Your task to perform on an android device: turn notification dots off Image 0: 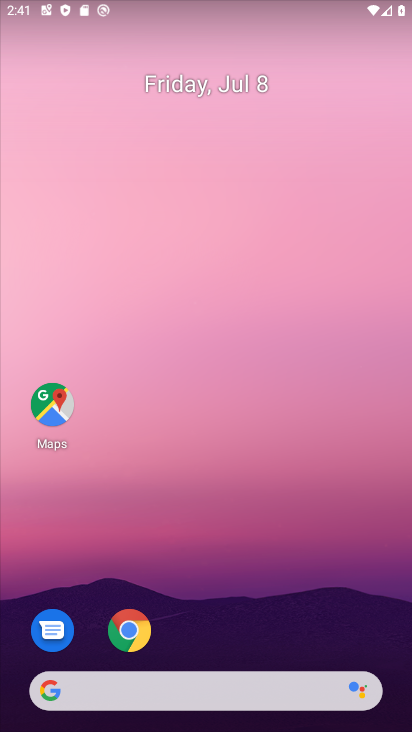
Step 0: drag from (307, 614) to (72, 27)
Your task to perform on an android device: turn notification dots off Image 1: 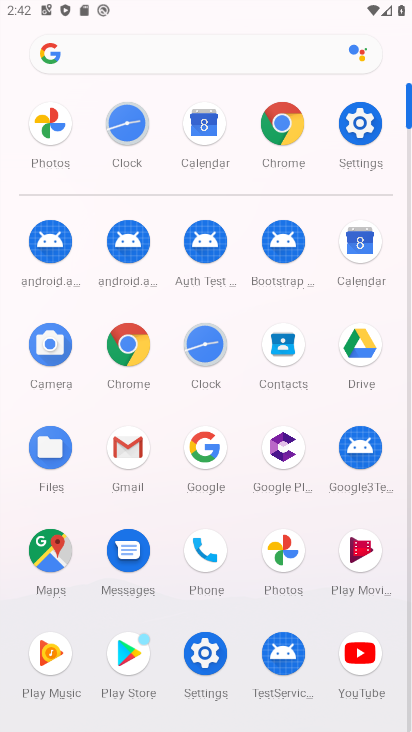
Step 1: click (346, 161)
Your task to perform on an android device: turn notification dots off Image 2: 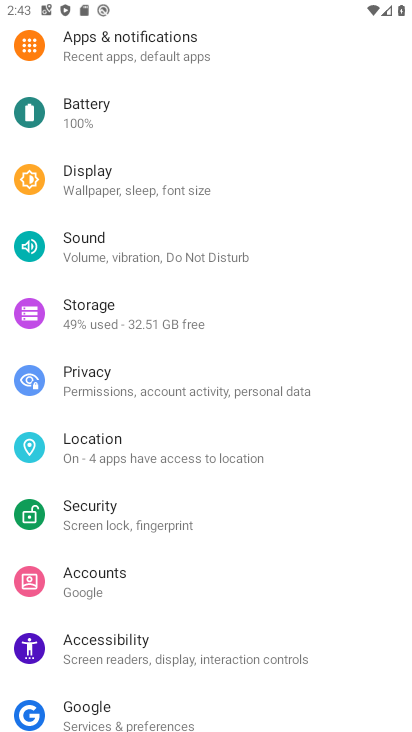
Step 2: drag from (151, 508) to (133, 251)
Your task to perform on an android device: turn notification dots off Image 3: 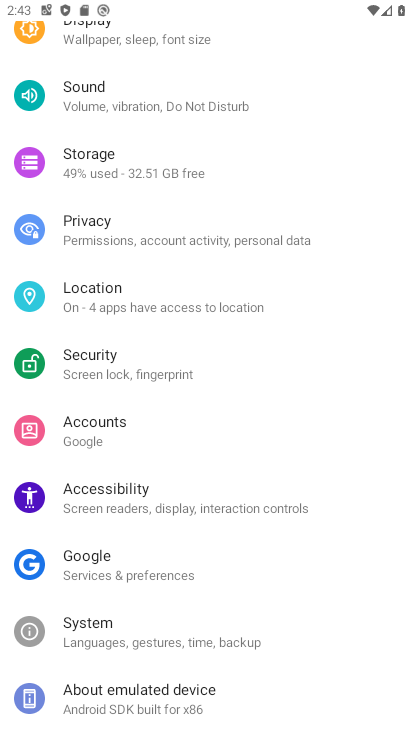
Step 3: drag from (148, 296) to (188, 600)
Your task to perform on an android device: turn notification dots off Image 4: 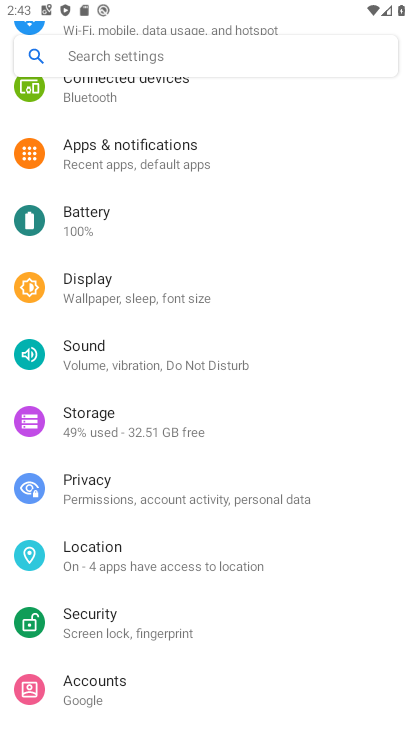
Step 4: click (122, 138)
Your task to perform on an android device: turn notification dots off Image 5: 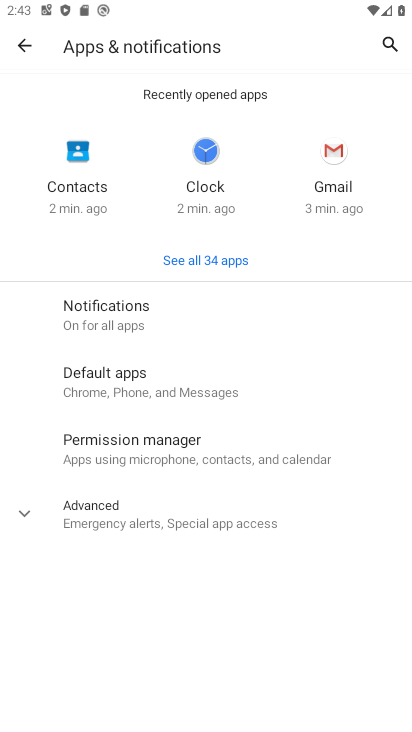
Step 5: task complete